Your task to perform on an android device: Open settings on Google Maps Image 0: 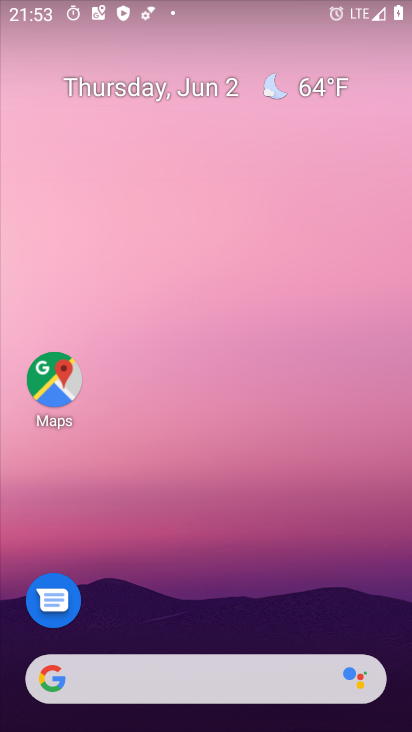
Step 0: click (65, 379)
Your task to perform on an android device: Open settings on Google Maps Image 1: 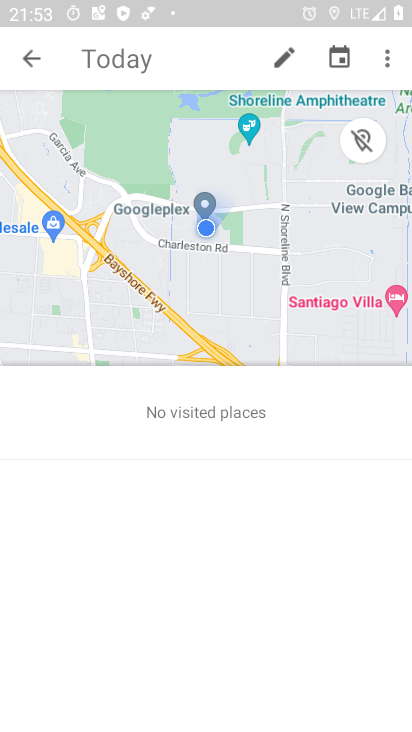
Step 1: press back button
Your task to perform on an android device: Open settings on Google Maps Image 2: 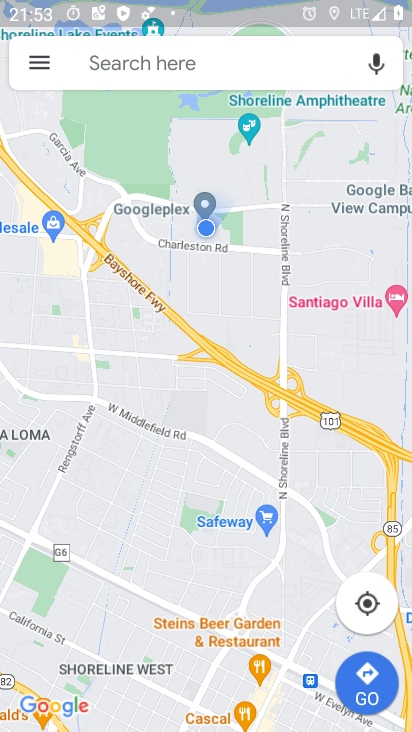
Step 2: click (34, 60)
Your task to perform on an android device: Open settings on Google Maps Image 3: 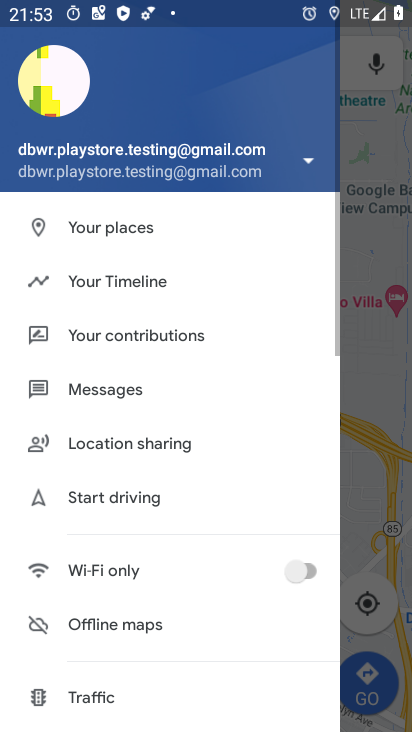
Step 3: drag from (118, 594) to (182, 180)
Your task to perform on an android device: Open settings on Google Maps Image 4: 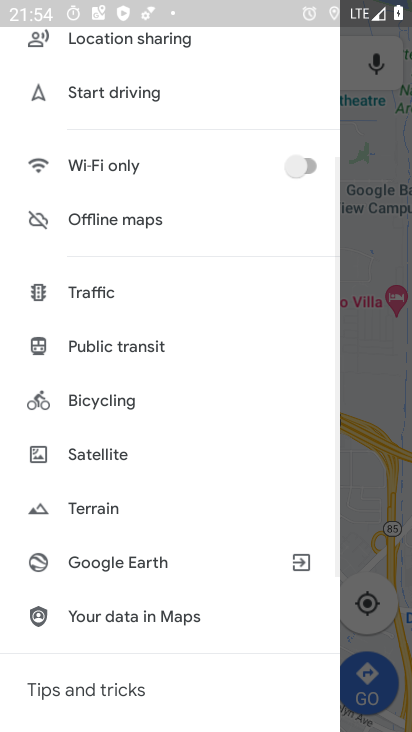
Step 4: drag from (161, 654) to (228, 299)
Your task to perform on an android device: Open settings on Google Maps Image 5: 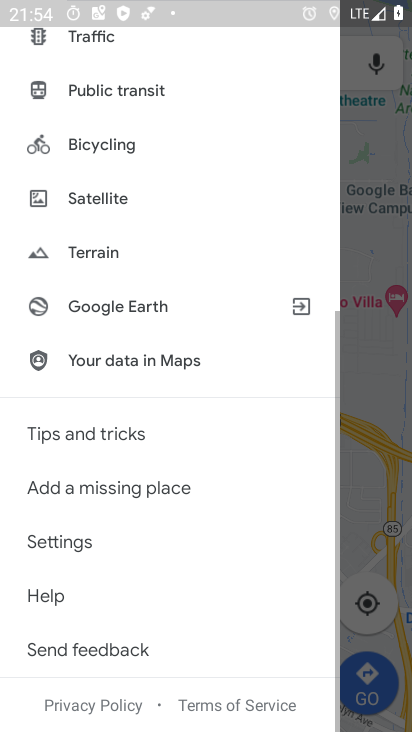
Step 5: click (90, 536)
Your task to perform on an android device: Open settings on Google Maps Image 6: 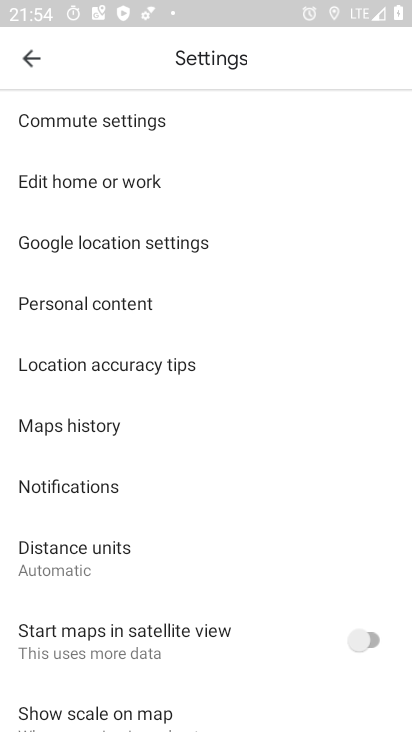
Step 6: task complete